Your task to perform on an android device: turn off priority inbox in the gmail app Image 0: 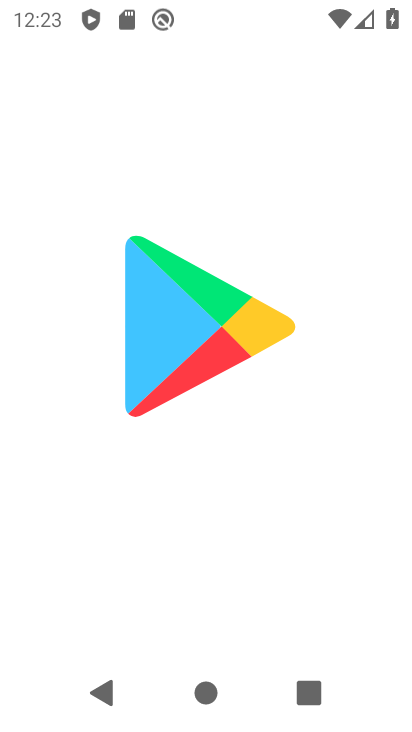
Step 0: click (260, 457)
Your task to perform on an android device: turn off priority inbox in the gmail app Image 1: 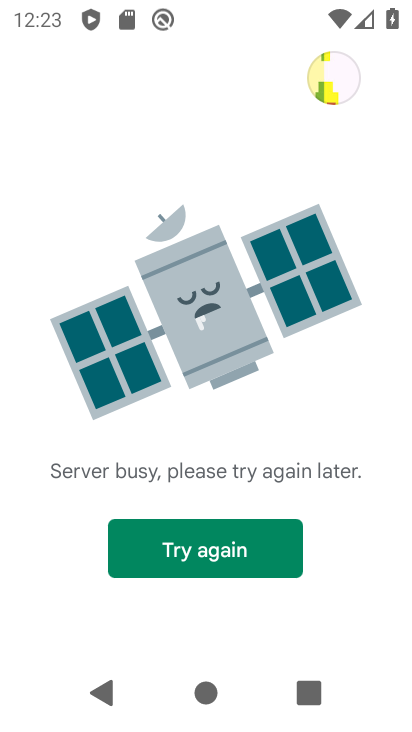
Step 1: press home button
Your task to perform on an android device: turn off priority inbox in the gmail app Image 2: 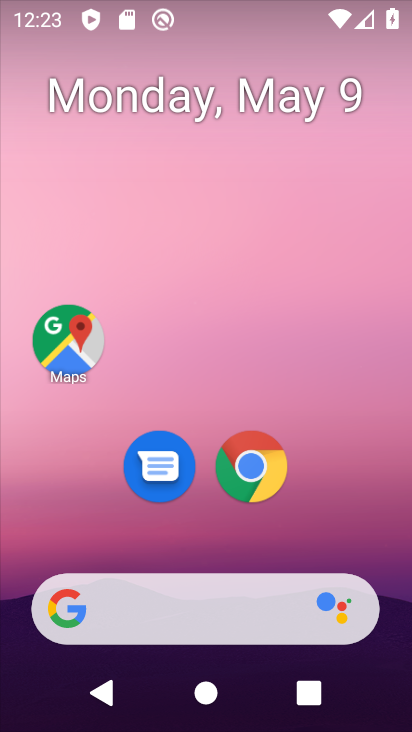
Step 2: drag from (395, 538) to (337, 108)
Your task to perform on an android device: turn off priority inbox in the gmail app Image 3: 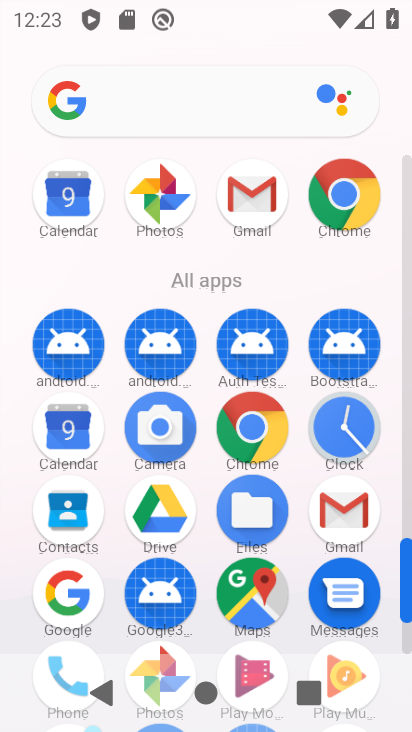
Step 3: click (262, 195)
Your task to perform on an android device: turn off priority inbox in the gmail app Image 4: 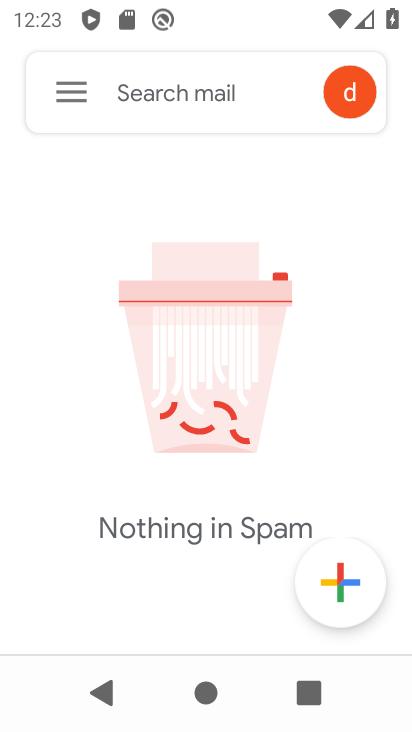
Step 4: click (74, 105)
Your task to perform on an android device: turn off priority inbox in the gmail app Image 5: 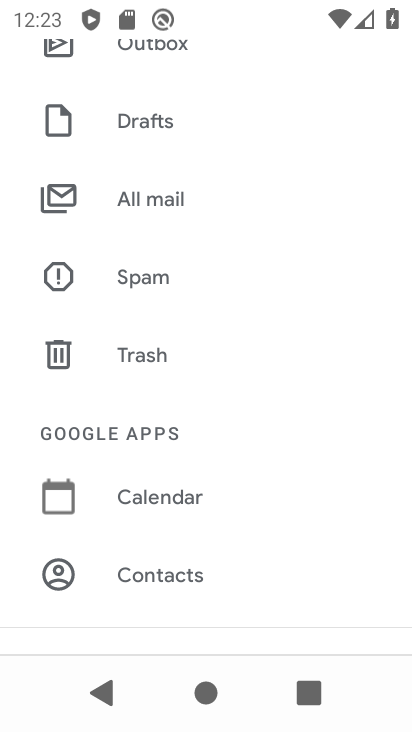
Step 5: drag from (313, 528) to (280, 118)
Your task to perform on an android device: turn off priority inbox in the gmail app Image 6: 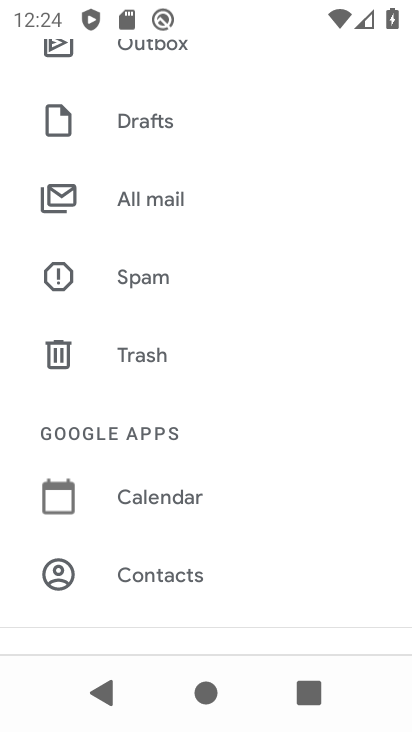
Step 6: drag from (222, 534) to (208, 82)
Your task to perform on an android device: turn off priority inbox in the gmail app Image 7: 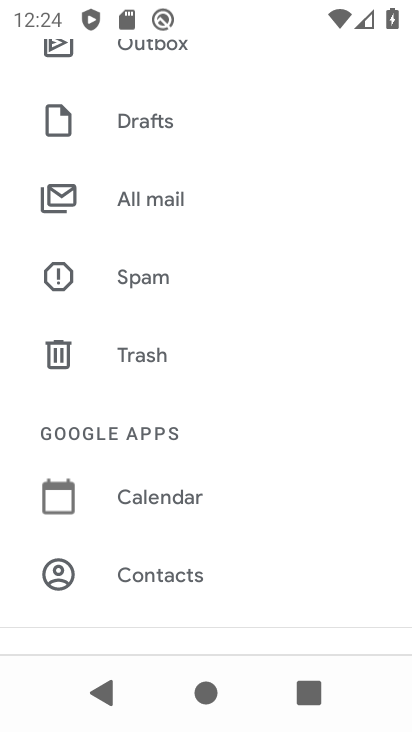
Step 7: drag from (334, 548) to (328, 121)
Your task to perform on an android device: turn off priority inbox in the gmail app Image 8: 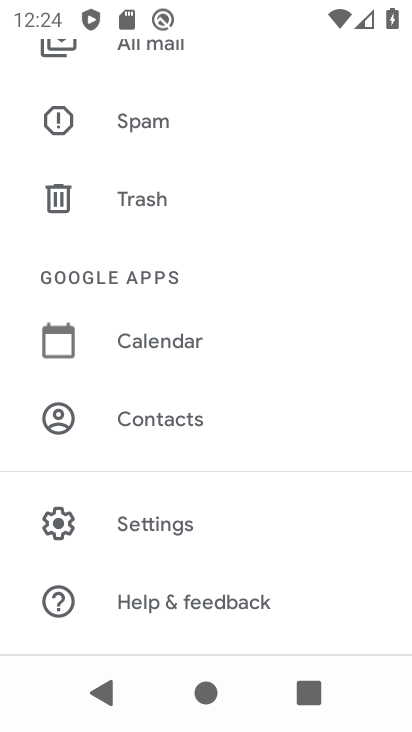
Step 8: click (268, 525)
Your task to perform on an android device: turn off priority inbox in the gmail app Image 9: 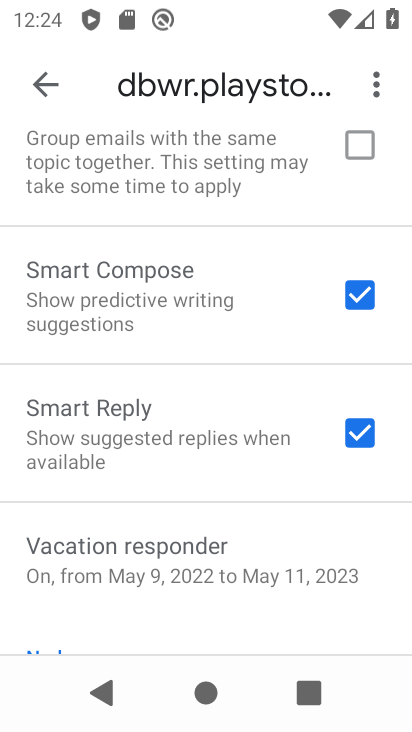
Step 9: drag from (273, 549) to (393, 526)
Your task to perform on an android device: turn off priority inbox in the gmail app Image 10: 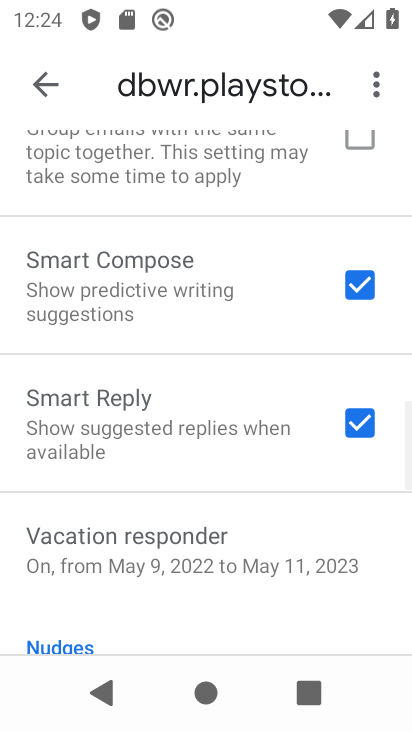
Step 10: drag from (252, 155) to (409, 507)
Your task to perform on an android device: turn off priority inbox in the gmail app Image 11: 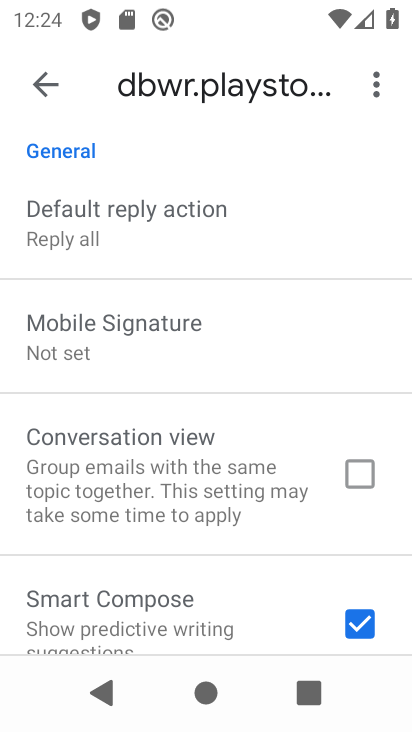
Step 11: drag from (233, 170) to (260, 605)
Your task to perform on an android device: turn off priority inbox in the gmail app Image 12: 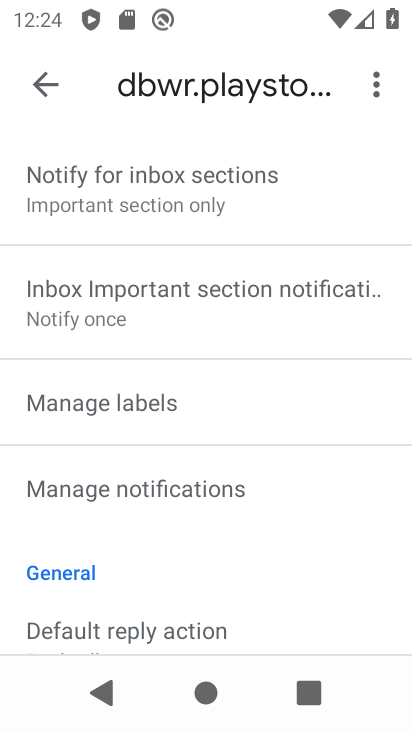
Step 12: drag from (227, 213) to (242, 580)
Your task to perform on an android device: turn off priority inbox in the gmail app Image 13: 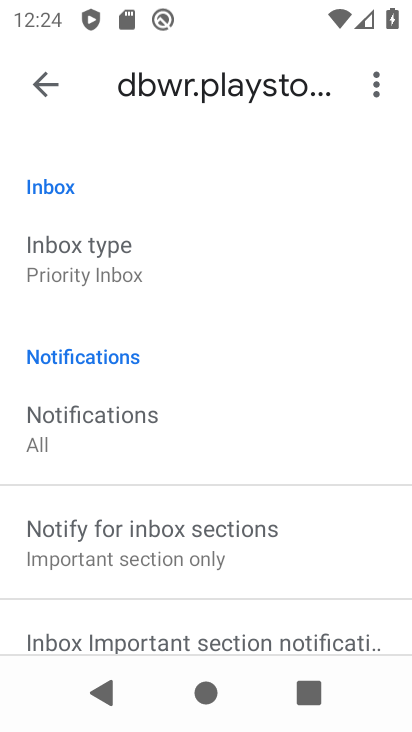
Step 13: click (204, 272)
Your task to perform on an android device: turn off priority inbox in the gmail app Image 14: 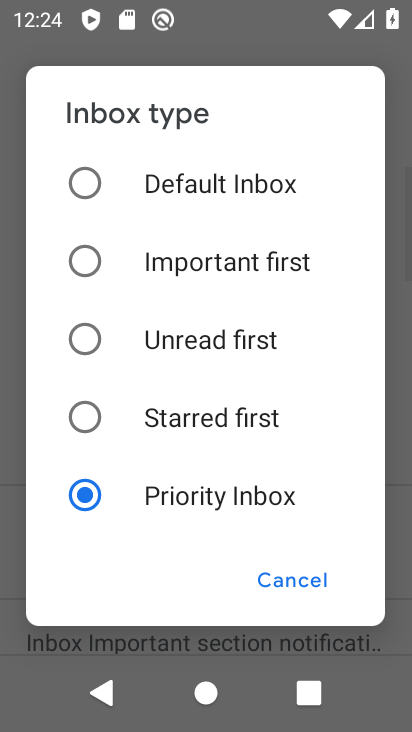
Step 14: click (204, 273)
Your task to perform on an android device: turn off priority inbox in the gmail app Image 15: 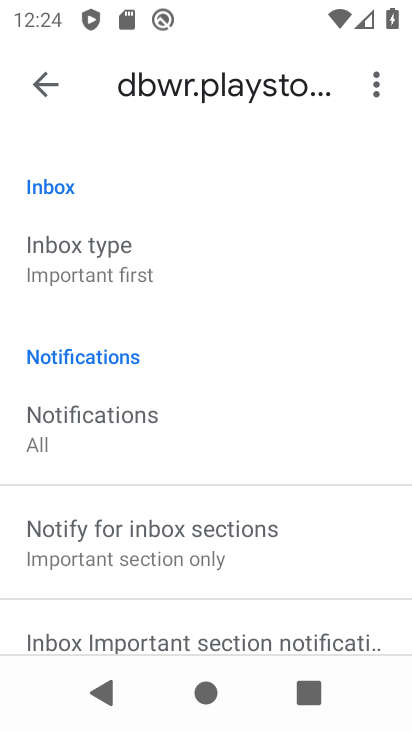
Step 15: task complete